Your task to perform on an android device: change keyboard looks Image 0: 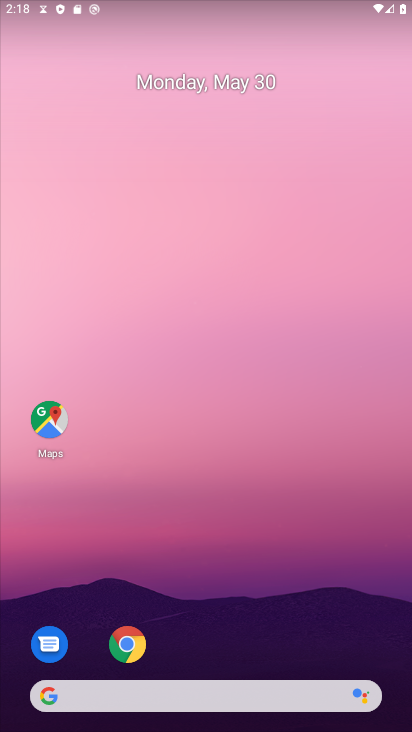
Step 0: drag from (284, 626) to (266, 226)
Your task to perform on an android device: change keyboard looks Image 1: 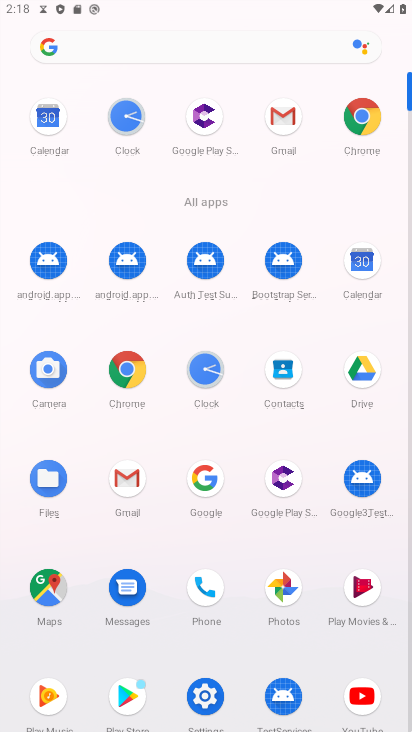
Step 1: click (213, 694)
Your task to perform on an android device: change keyboard looks Image 2: 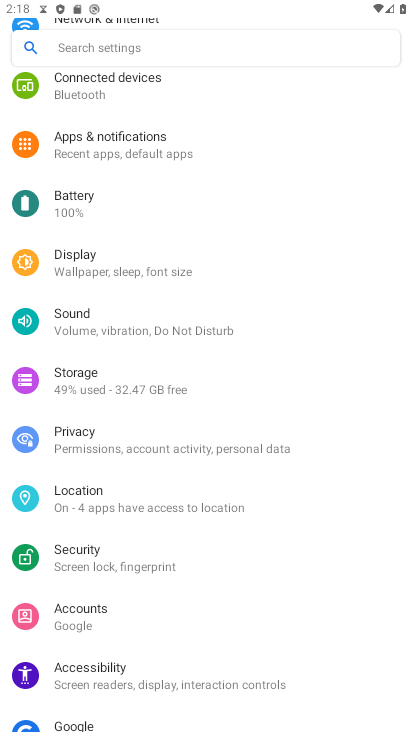
Step 2: drag from (344, 644) to (335, 398)
Your task to perform on an android device: change keyboard looks Image 3: 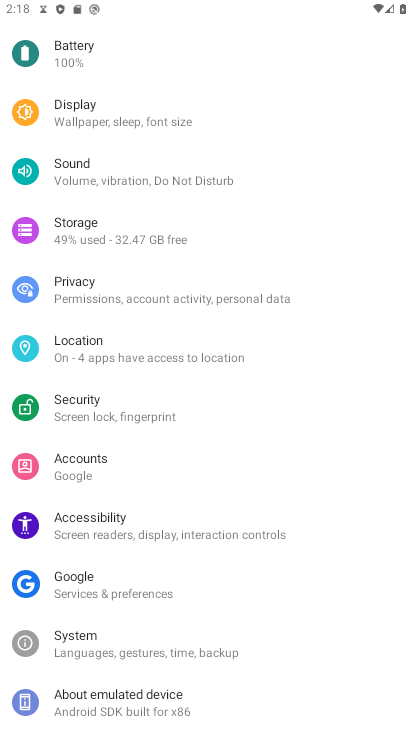
Step 3: click (162, 629)
Your task to perform on an android device: change keyboard looks Image 4: 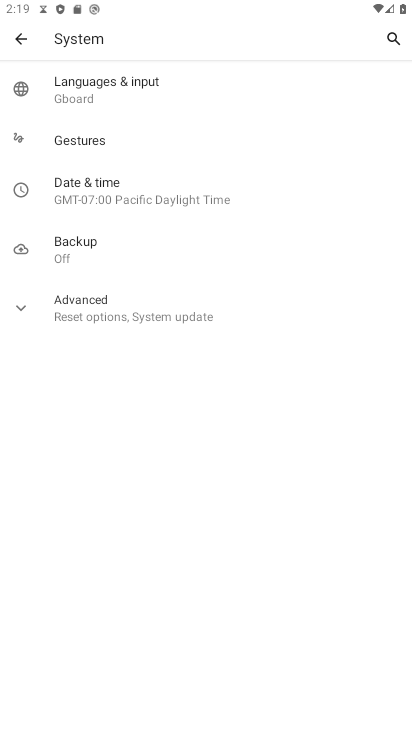
Step 4: click (154, 88)
Your task to perform on an android device: change keyboard looks Image 5: 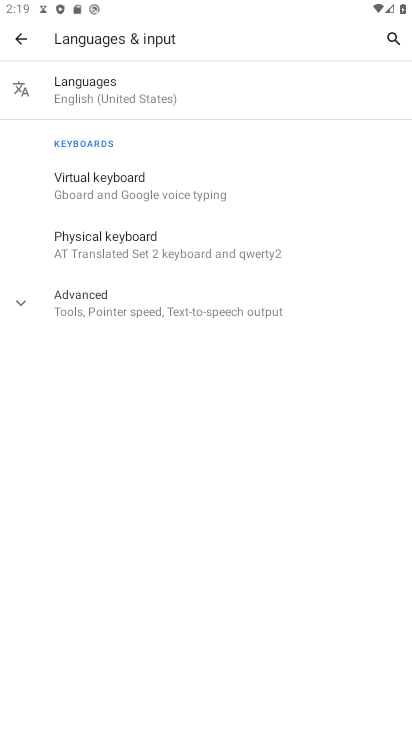
Step 5: click (132, 188)
Your task to perform on an android device: change keyboard looks Image 6: 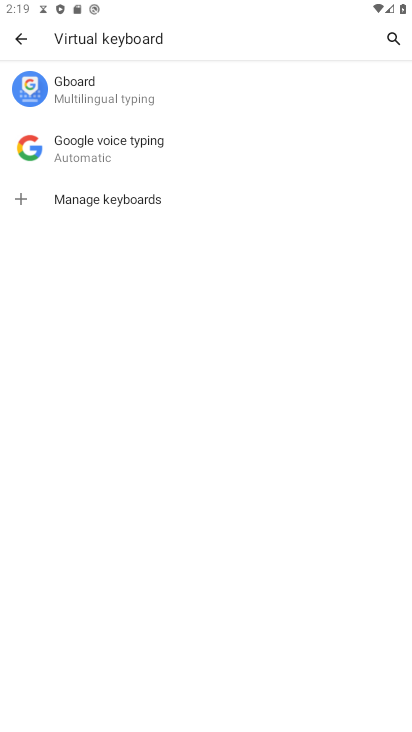
Step 6: click (83, 82)
Your task to perform on an android device: change keyboard looks Image 7: 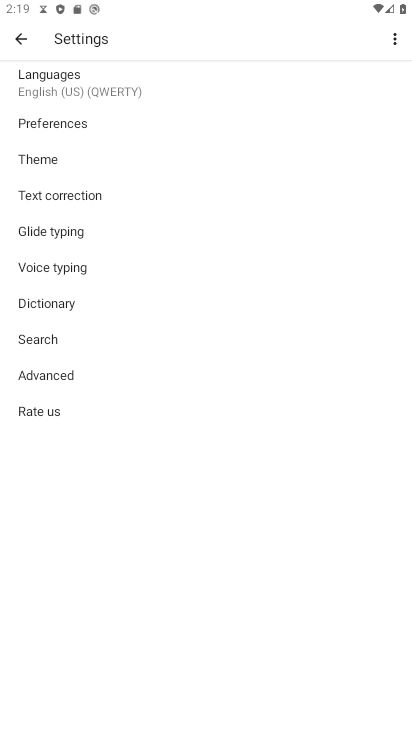
Step 7: click (40, 163)
Your task to perform on an android device: change keyboard looks Image 8: 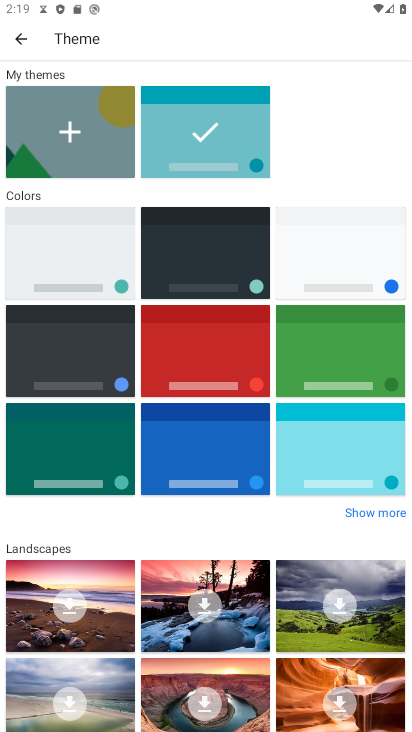
Step 8: click (182, 468)
Your task to perform on an android device: change keyboard looks Image 9: 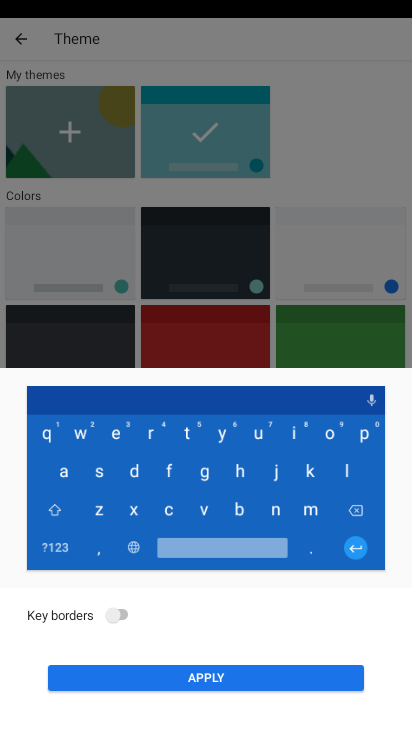
Step 9: click (232, 676)
Your task to perform on an android device: change keyboard looks Image 10: 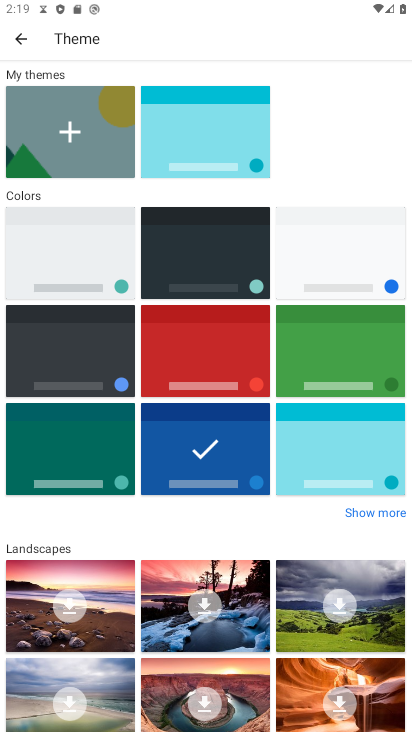
Step 10: task complete